Your task to perform on an android device: turn on priority inbox in the gmail app Image 0: 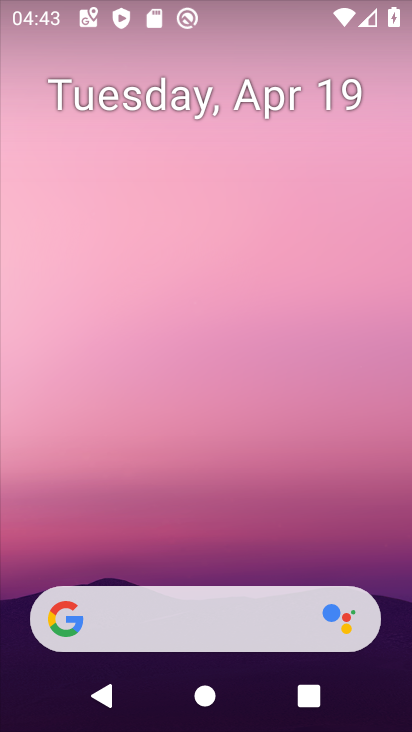
Step 0: drag from (128, 520) to (149, 179)
Your task to perform on an android device: turn on priority inbox in the gmail app Image 1: 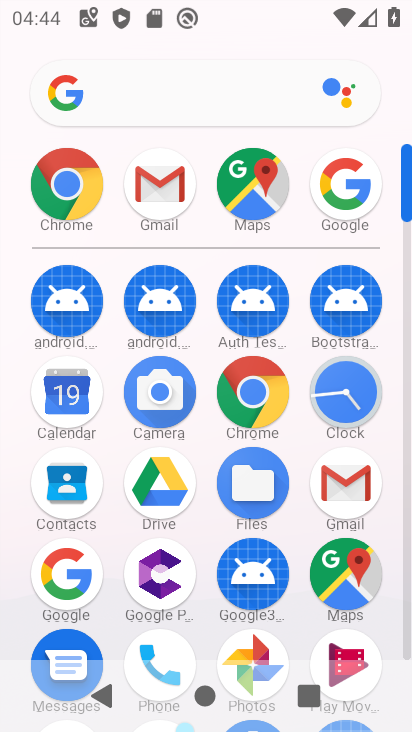
Step 1: click (149, 179)
Your task to perform on an android device: turn on priority inbox in the gmail app Image 2: 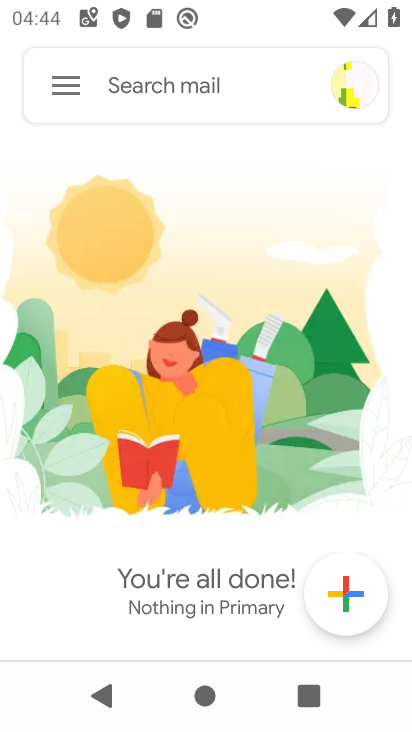
Step 2: click (74, 84)
Your task to perform on an android device: turn on priority inbox in the gmail app Image 3: 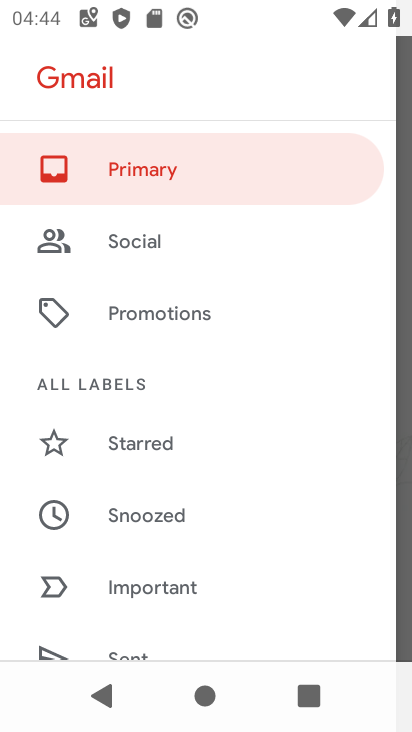
Step 3: drag from (144, 556) to (188, 302)
Your task to perform on an android device: turn on priority inbox in the gmail app Image 4: 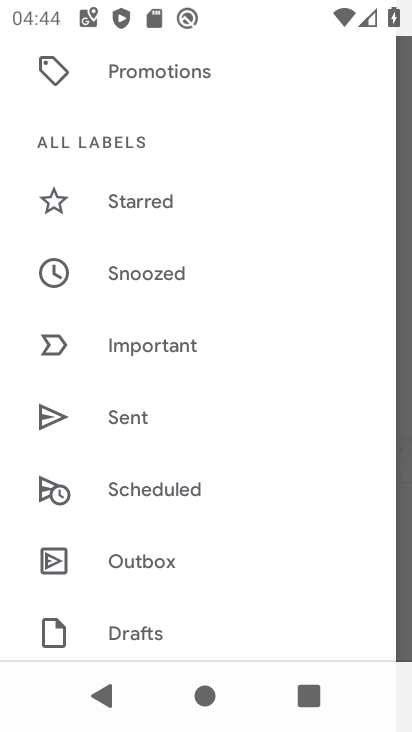
Step 4: drag from (136, 455) to (222, 248)
Your task to perform on an android device: turn on priority inbox in the gmail app Image 5: 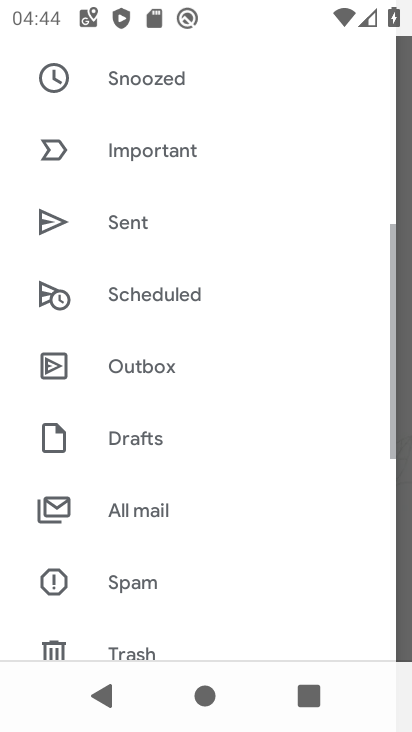
Step 5: drag from (122, 531) to (189, 321)
Your task to perform on an android device: turn on priority inbox in the gmail app Image 6: 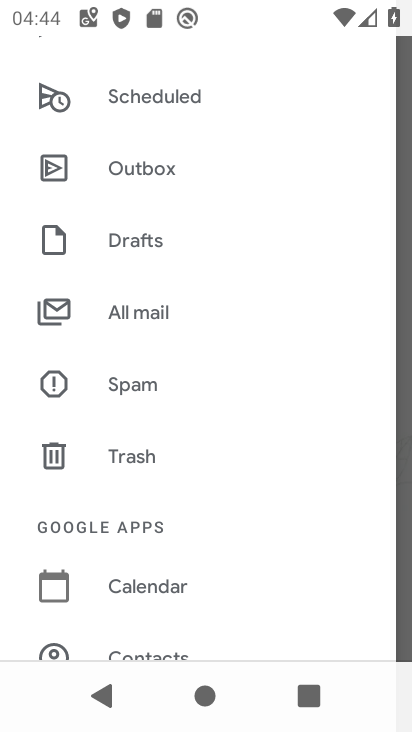
Step 6: drag from (119, 609) to (205, 325)
Your task to perform on an android device: turn on priority inbox in the gmail app Image 7: 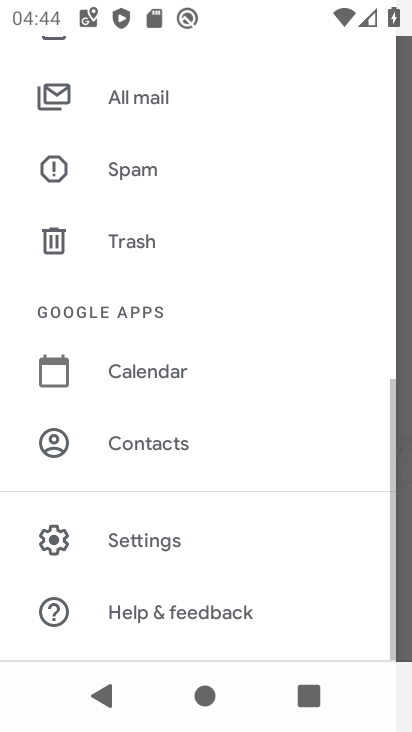
Step 7: click (55, 533)
Your task to perform on an android device: turn on priority inbox in the gmail app Image 8: 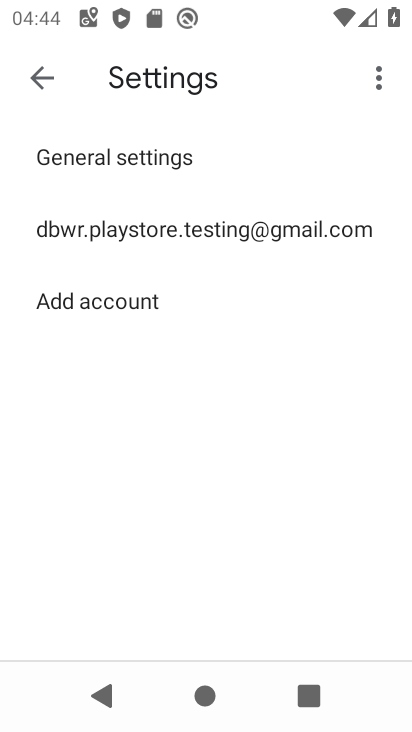
Step 8: click (149, 228)
Your task to perform on an android device: turn on priority inbox in the gmail app Image 9: 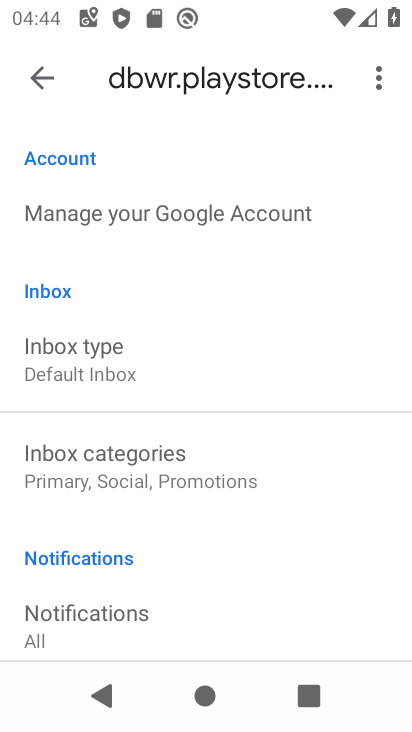
Step 9: click (109, 351)
Your task to perform on an android device: turn on priority inbox in the gmail app Image 10: 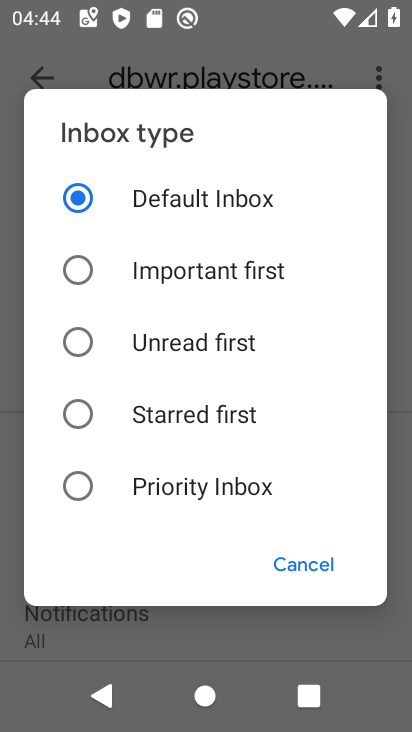
Step 10: click (152, 478)
Your task to perform on an android device: turn on priority inbox in the gmail app Image 11: 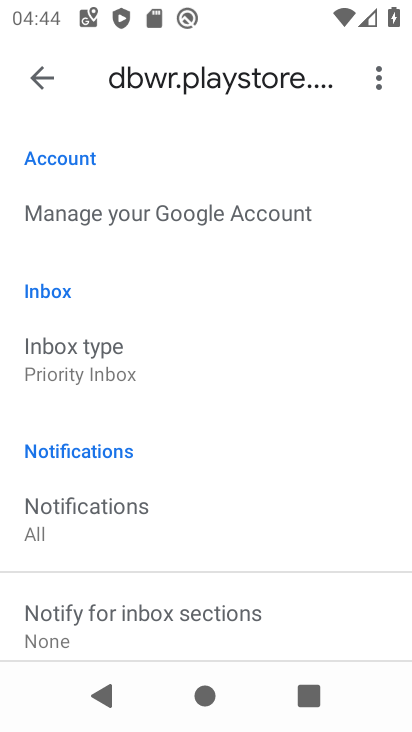
Step 11: task complete